Your task to perform on an android device: Open Google Maps and go to "Timeline" Image 0: 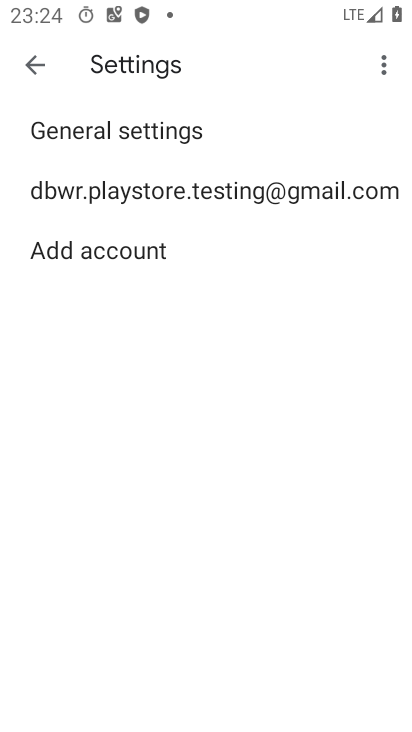
Step 0: press home button
Your task to perform on an android device: Open Google Maps and go to "Timeline" Image 1: 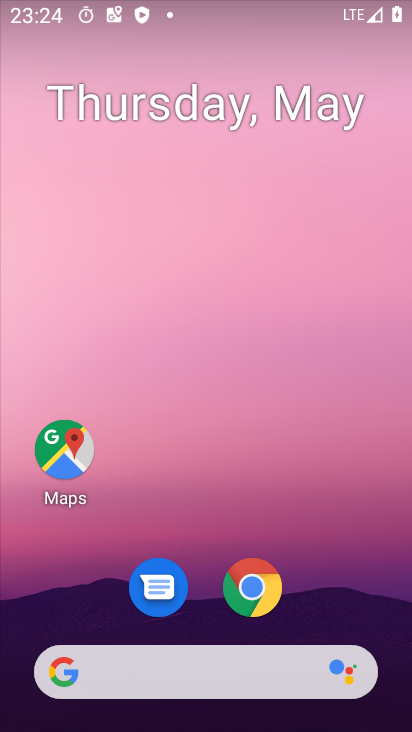
Step 1: click (48, 431)
Your task to perform on an android device: Open Google Maps and go to "Timeline" Image 2: 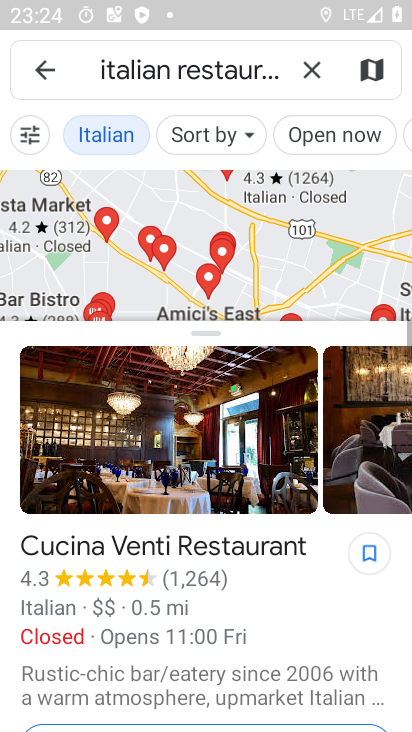
Step 2: click (303, 73)
Your task to perform on an android device: Open Google Maps and go to "Timeline" Image 3: 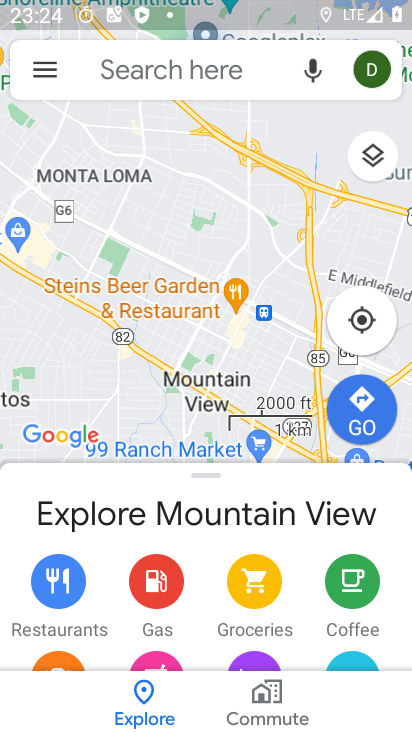
Step 3: click (50, 68)
Your task to perform on an android device: Open Google Maps and go to "Timeline" Image 4: 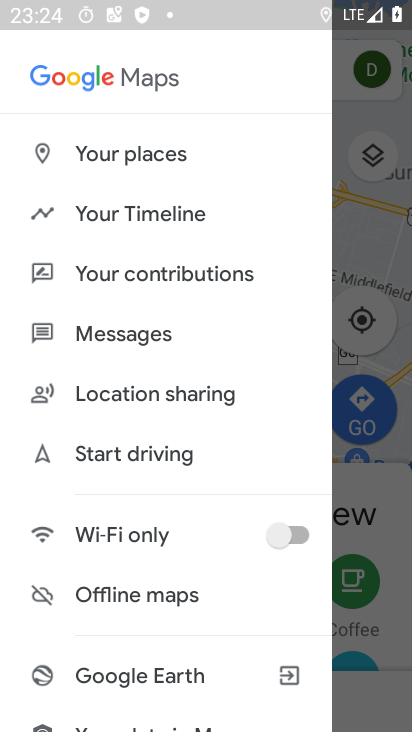
Step 4: click (99, 219)
Your task to perform on an android device: Open Google Maps and go to "Timeline" Image 5: 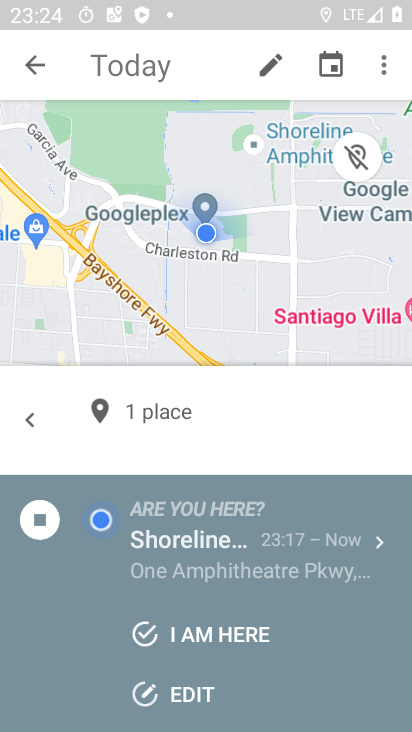
Step 5: task complete